Your task to perform on an android device: Open CNN.com Image 0: 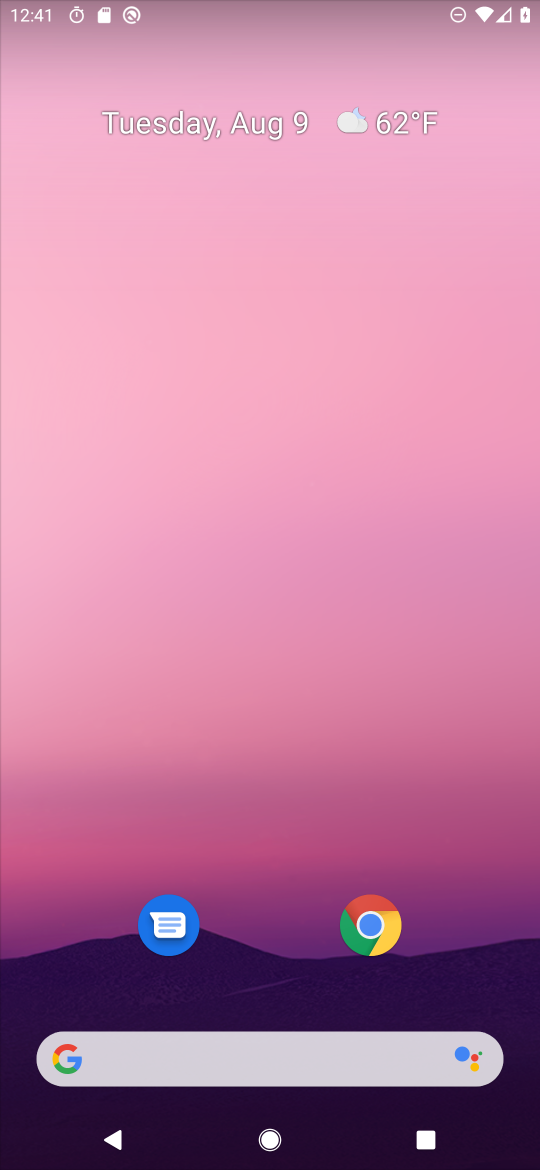
Step 0: drag from (270, 883) to (358, 145)
Your task to perform on an android device: Open CNN.com Image 1: 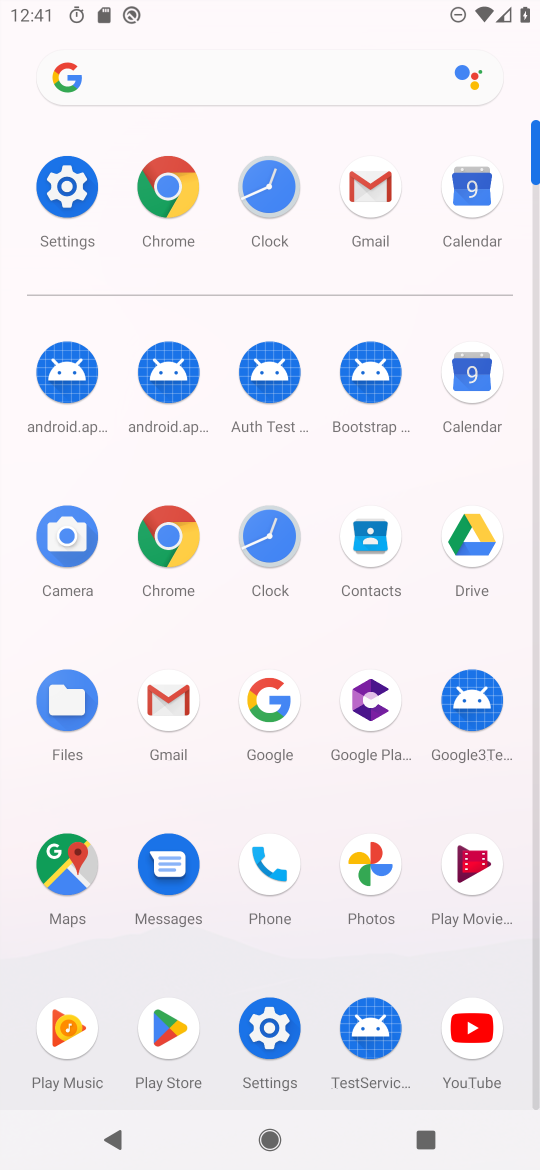
Step 1: click (169, 529)
Your task to perform on an android device: Open CNN.com Image 2: 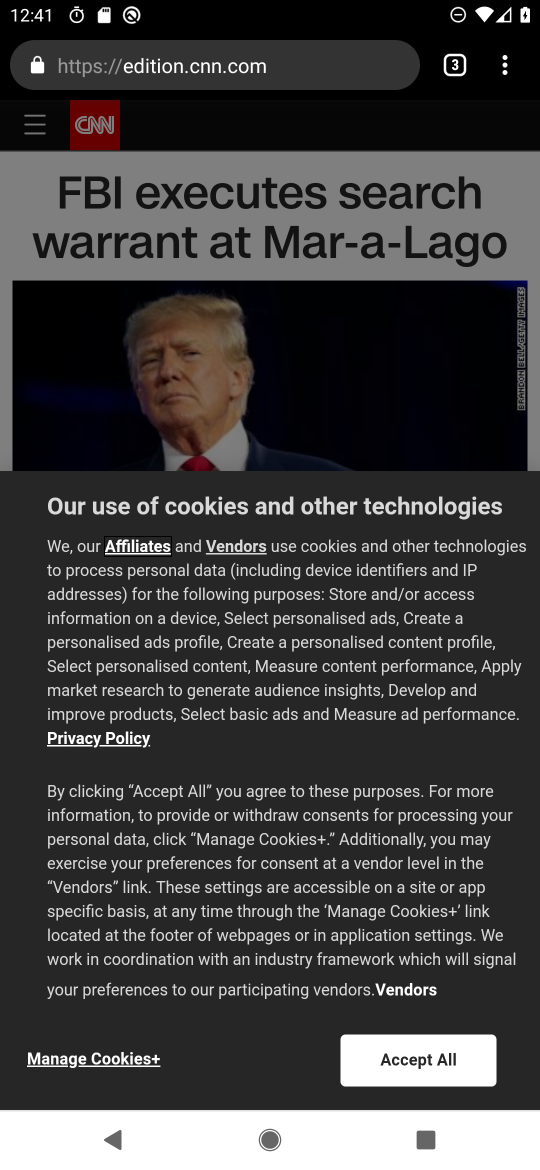
Step 2: click (302, 62)
Your task to perform on an android device: Open CNN.com Image 3: 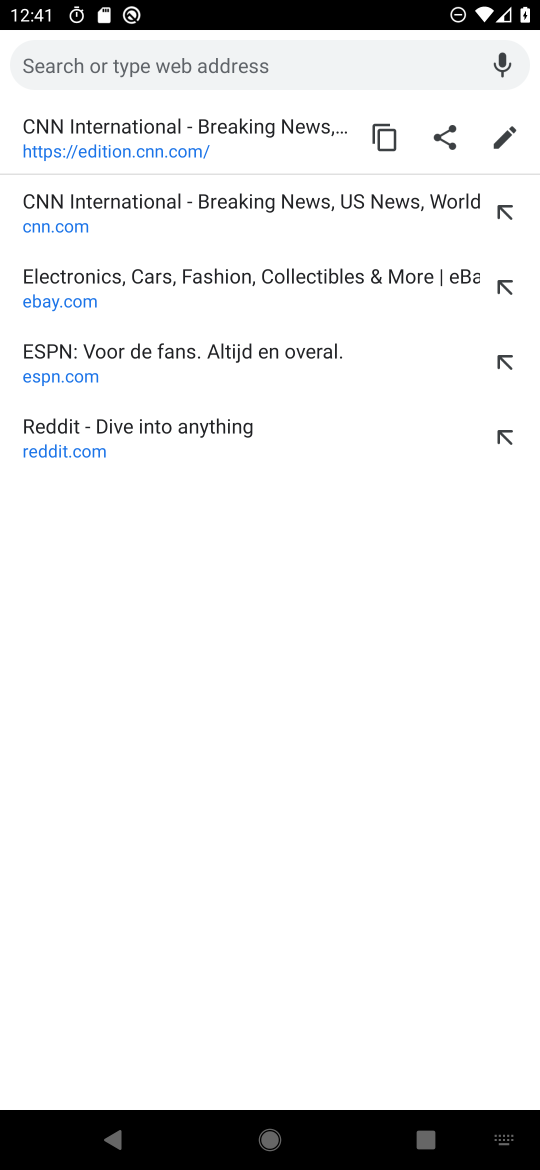
Step 3: click (186, 136)
Your task to perform on an android device: Open CNN.com Image 4: 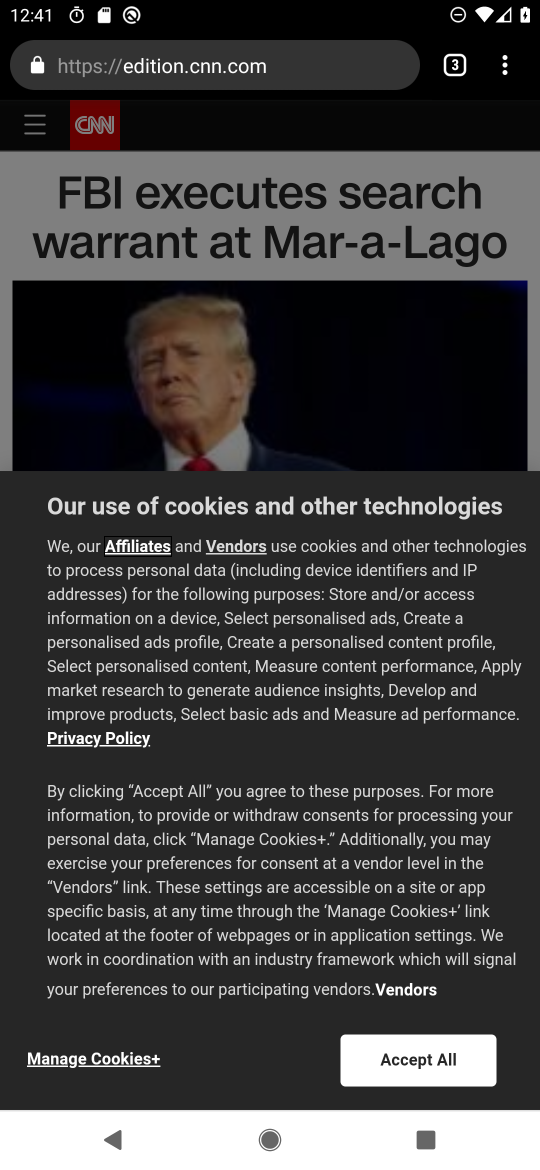
Step 4: task complete